Your task to perform on an android device: make emails show in primary in the gmail app Image 0: 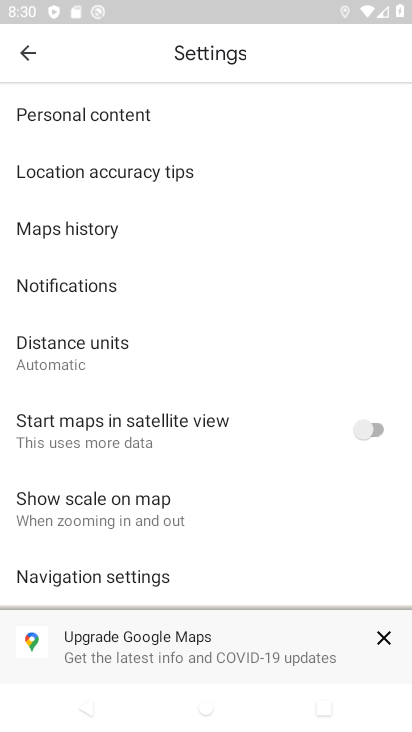
Step 0: press home button
Your task to perform on an android device: make emails show in primary in the gmail app Image 1: 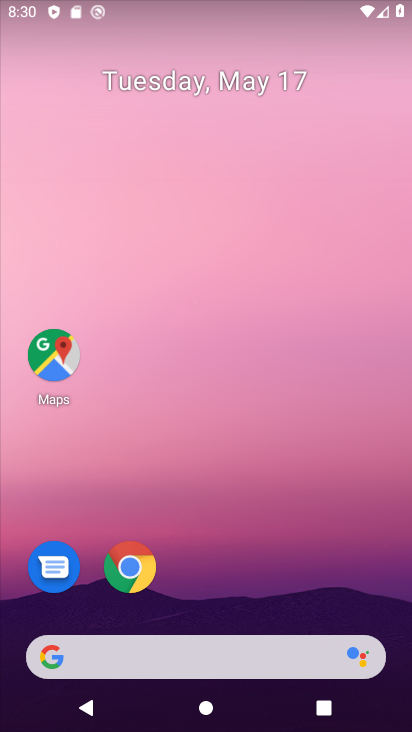
Step 1: drag from (201, 626) to (143, 271)
Your task to perform on an android device: make emails show in primary in the gmail app Image 2: 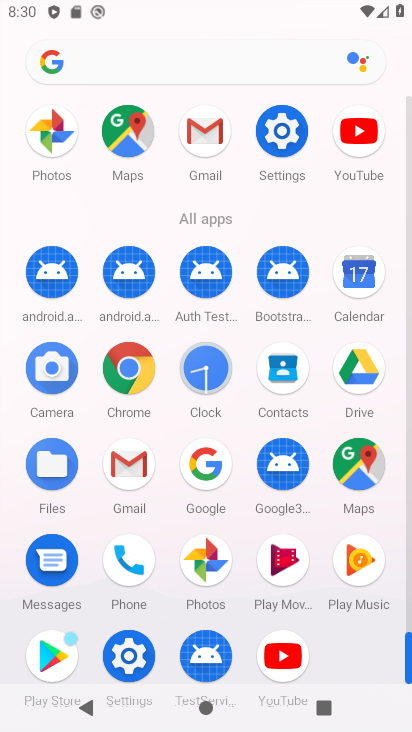
Step 2: click (215, 131)
Your task to perform on an android device: make emails show in primary in the gmail app Image 3: 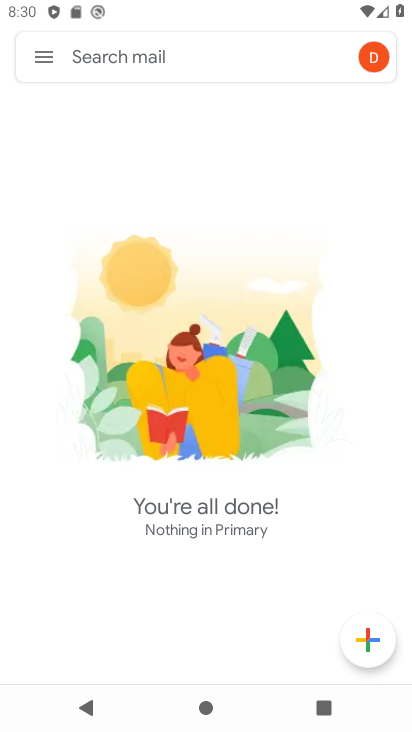
Step 3: click (56, 58)
Your task to perform on an android device: make emails show in primary in the gmail app Image 4: 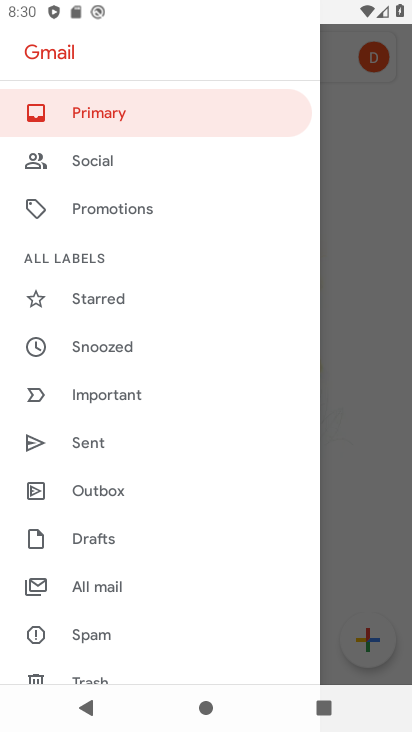
Step 4: drag from (97, 668) to (77, 319)
Your task to perform on an android device: make emails show in primary in the gmail app Image 5: 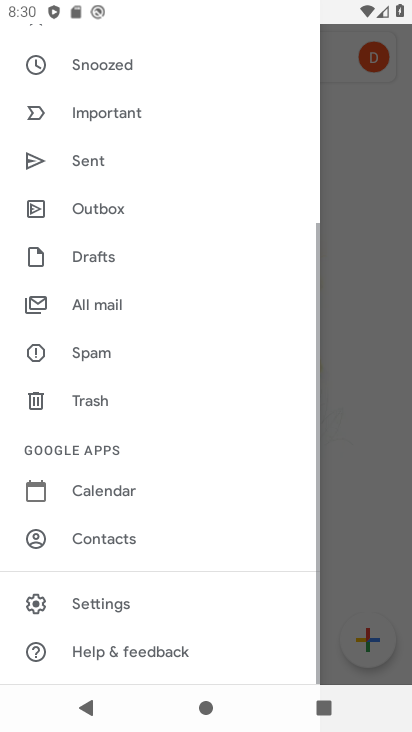
Step 5: drag from (101, 645) to (141, 311)
Your task to perform on an android device: make emails show in primary in the gmail app Image 6: 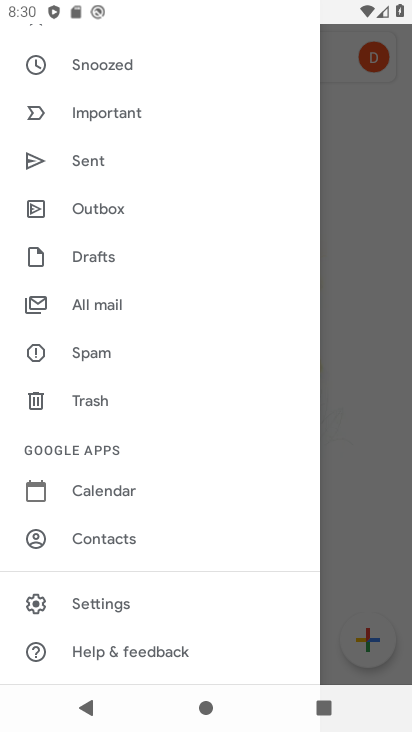
Step 6: click (99, 607)
Your task to perform on an android device: make emails show in primary in the gmail app Image 7: 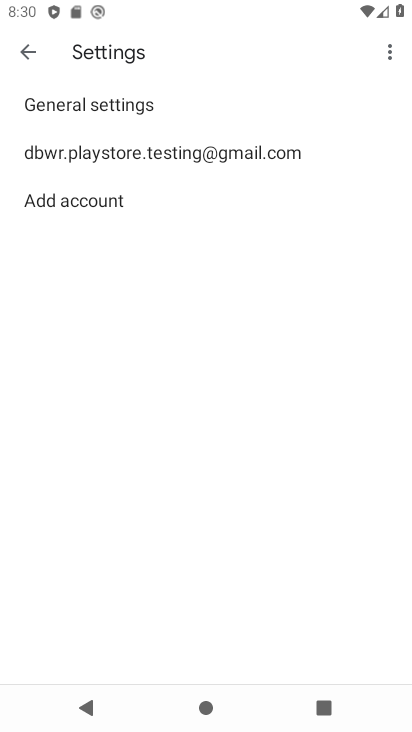
Step 7: click (94, 156)
Your task to perform on an android device: make emails show in primary in the gmail app Image 8: 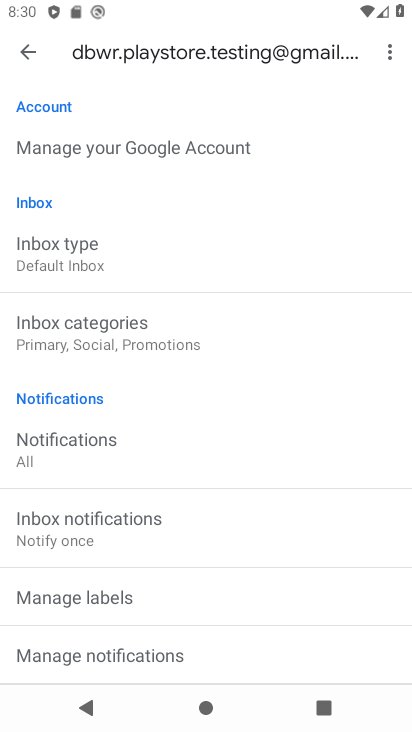
Step 8: click (106, 338)
Your task to perform on an android device: make emails show in primary in the gmail app Image 9: 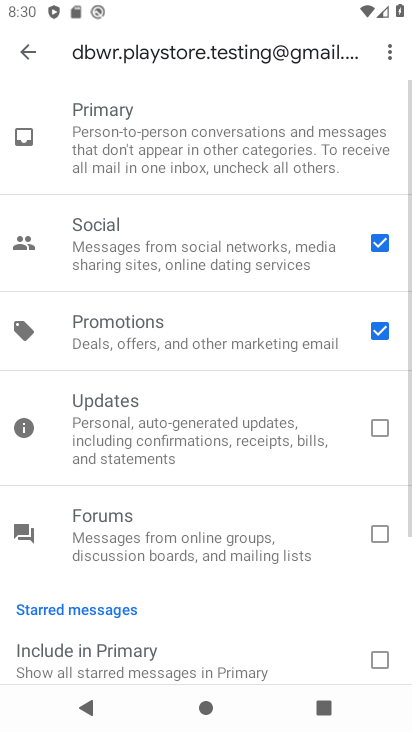
Step 9: click (381, 332)
Your task to perform on an android device: make emails show in primary in the gmail app Image 10: 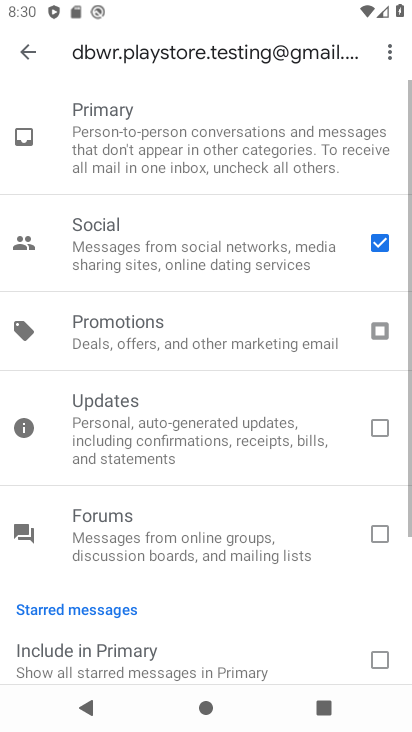
Step 10: click (376, 241)
Your task to perform on an android device: make emails show in primary in the gmail app Image 11: 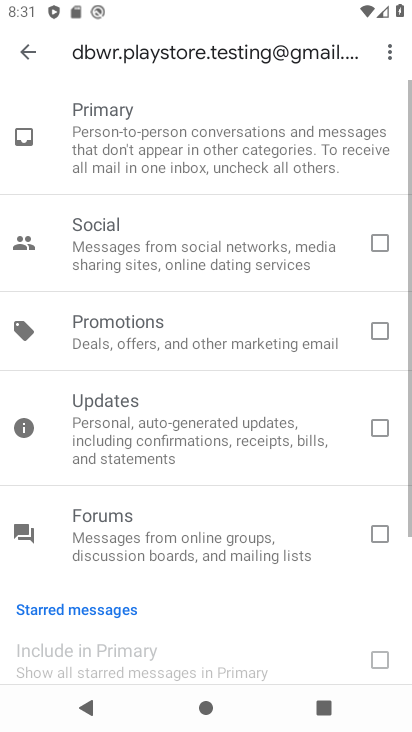
Step 11: click (22, 50)
Your task to perform on an android device: make emails show in primary in the gmail app Image 12: 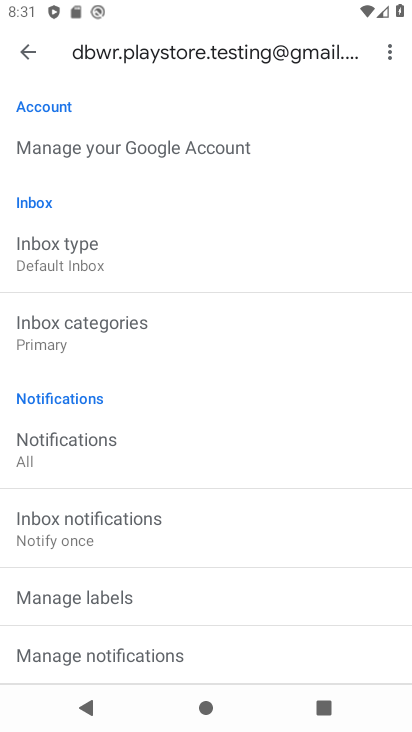
Step 12: task complete